Your task to perform on an android device: uninstall "Truecaller" Image 0: 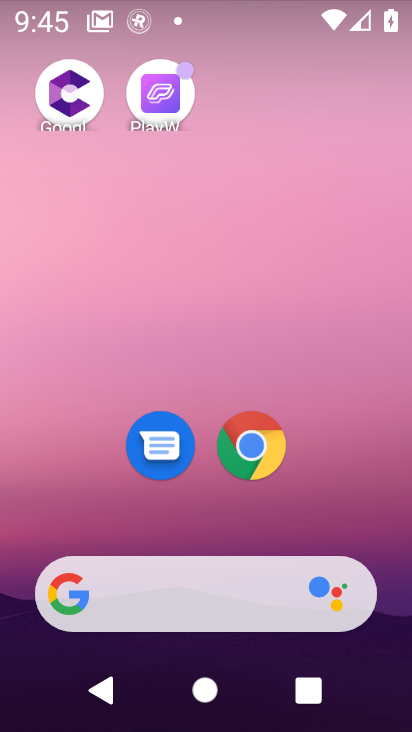
Step 0: drag from (257, 375) to (320, 47)
Your task to perform on an android device: uninstall "Truecaller" Image 1: 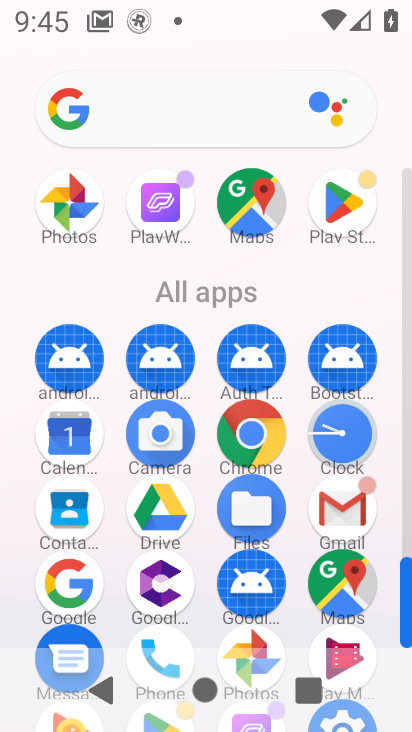
Step 1: click (334, 206)
Your task to perform on an android device: uninstall "Truecaller" Image 2: 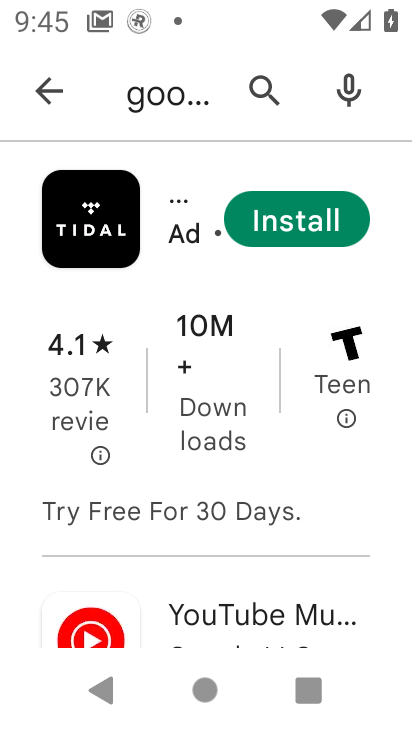
Step 2: click (56, 90)
Your task to perform on an android device: uninstall "Truecaller" Image 3: 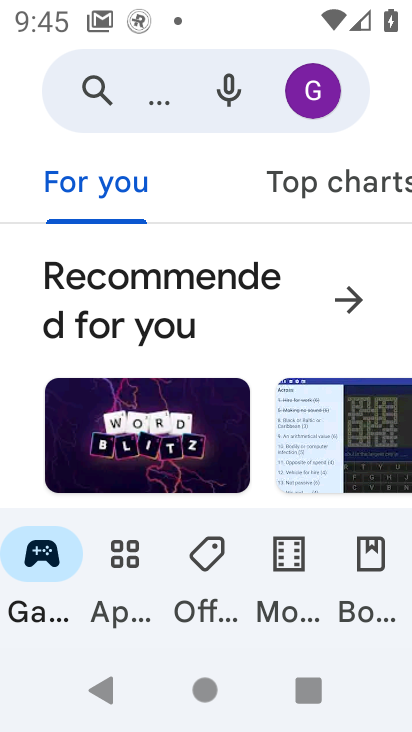
Step 3: click (101, 93)
Your task to perform on an android device: uninstall "Truecaller" Image 4: 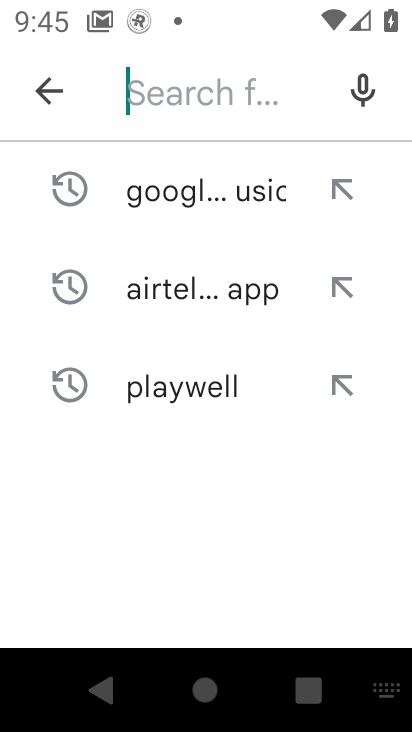
Step 4: type "Truecaller"
Your task to perform on an android device: uninstall "Truecaller" Image 5: 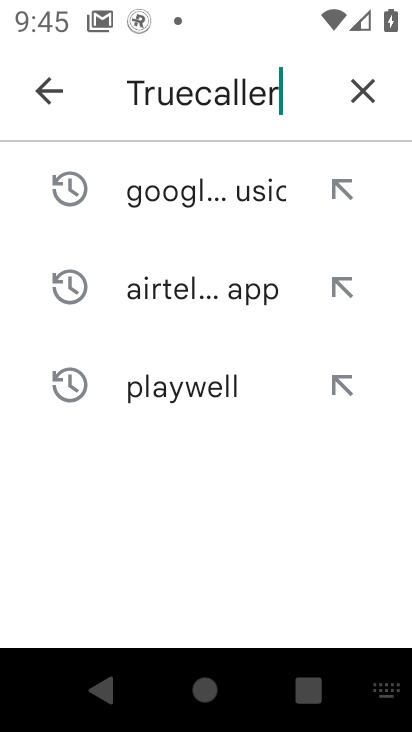
Step 5: type ""
Your task to perform on an android device: uninstall "Truecaller" Image 6: 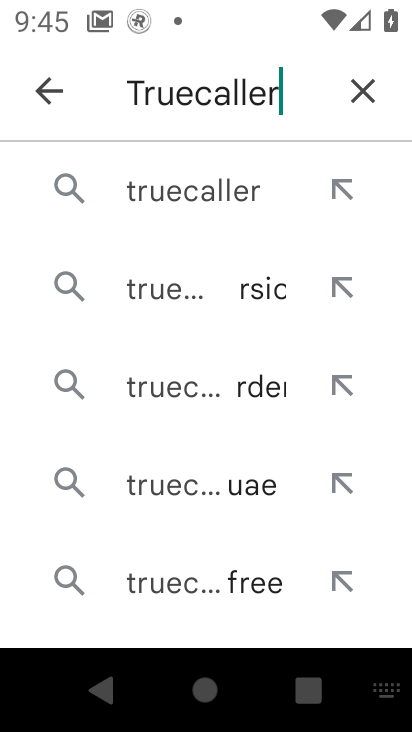
Step 6: click (182, 194)
Your task to perform on an android device: uninstall "Truecaller" Image 7: 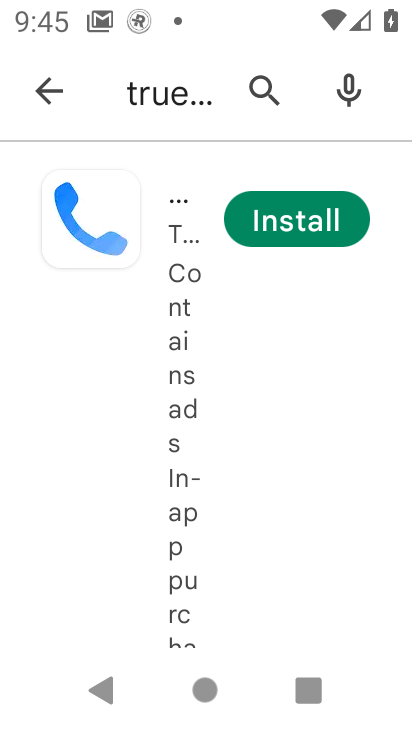
Step 7: task complete